Your task to perform on an android device: View the shopping cart on walmart.com. Image 0: 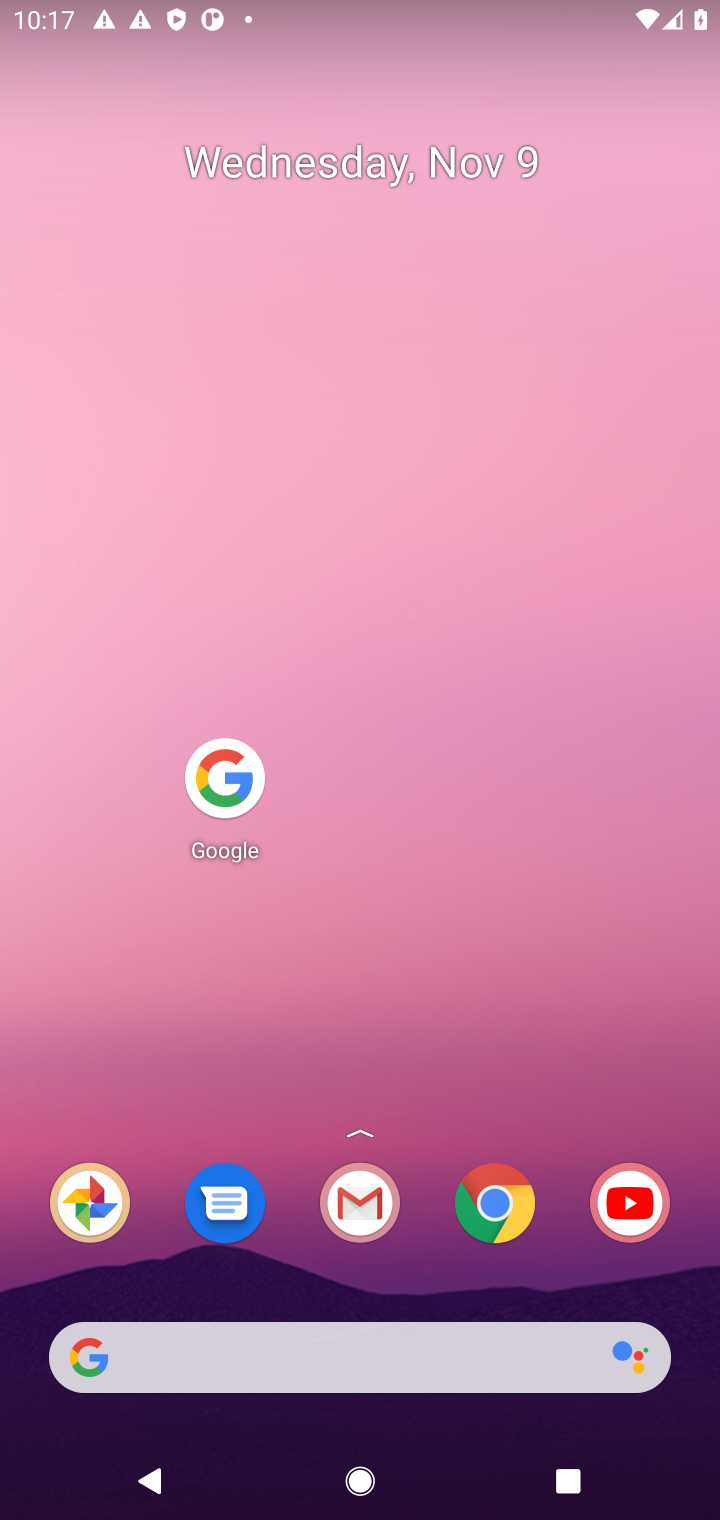
Step 0: press home button
Your task to perform on an android device: View the shopping cart on walmart.com. Image 1: 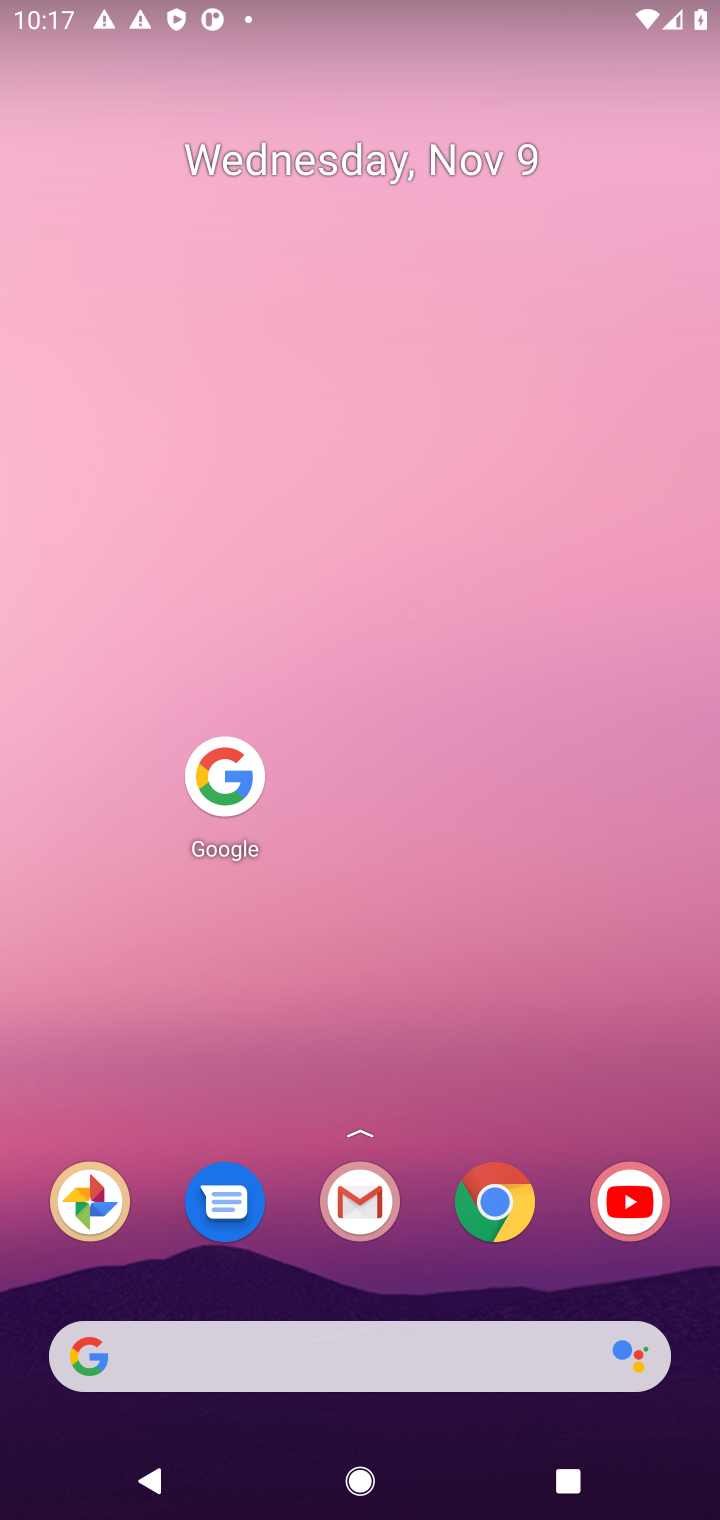
Step 1: click (236, 777)
Your task to perform on an android device: View the shopping cart on walmart.com. Image 2: 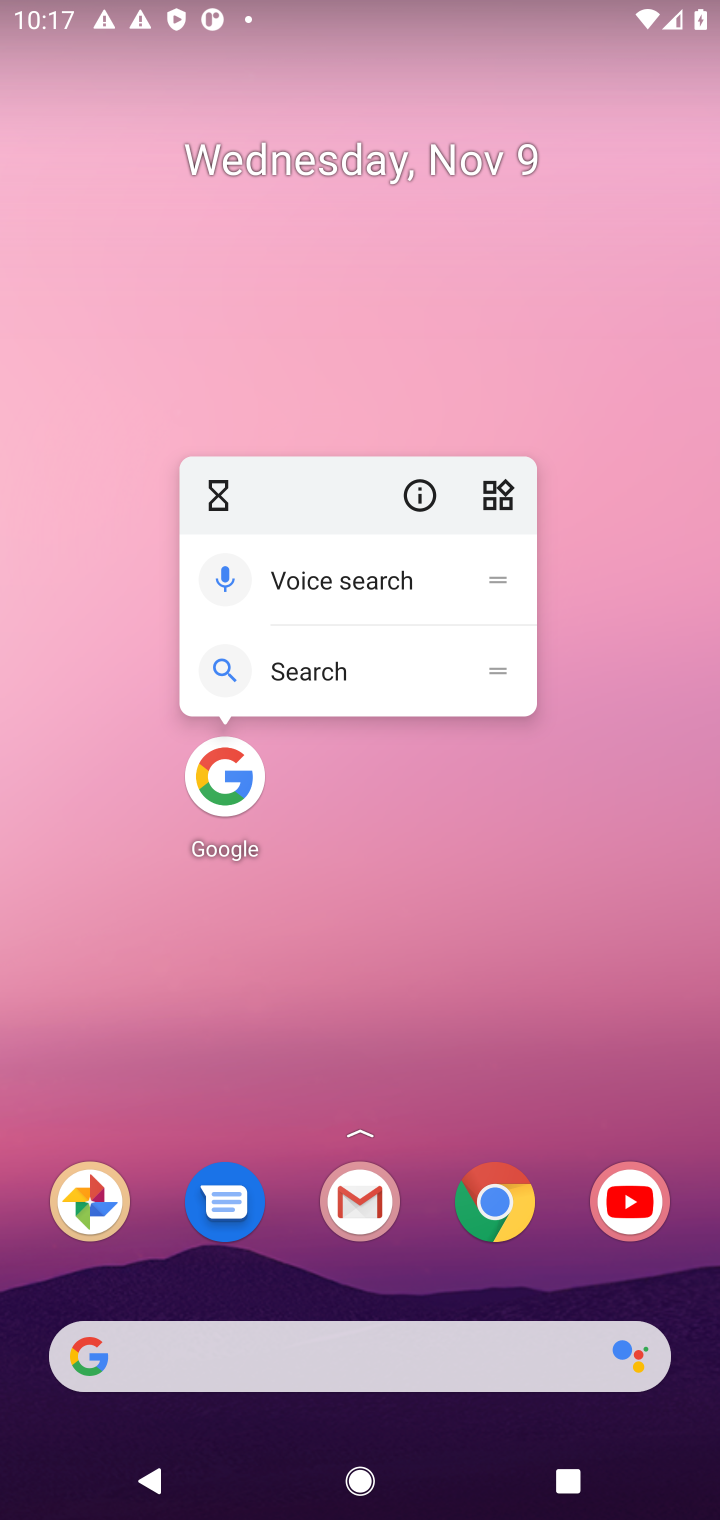
Step 2: click (236, 780)
Your task to perform on an android device: View the shopping cart on walmart.com. Image 3: 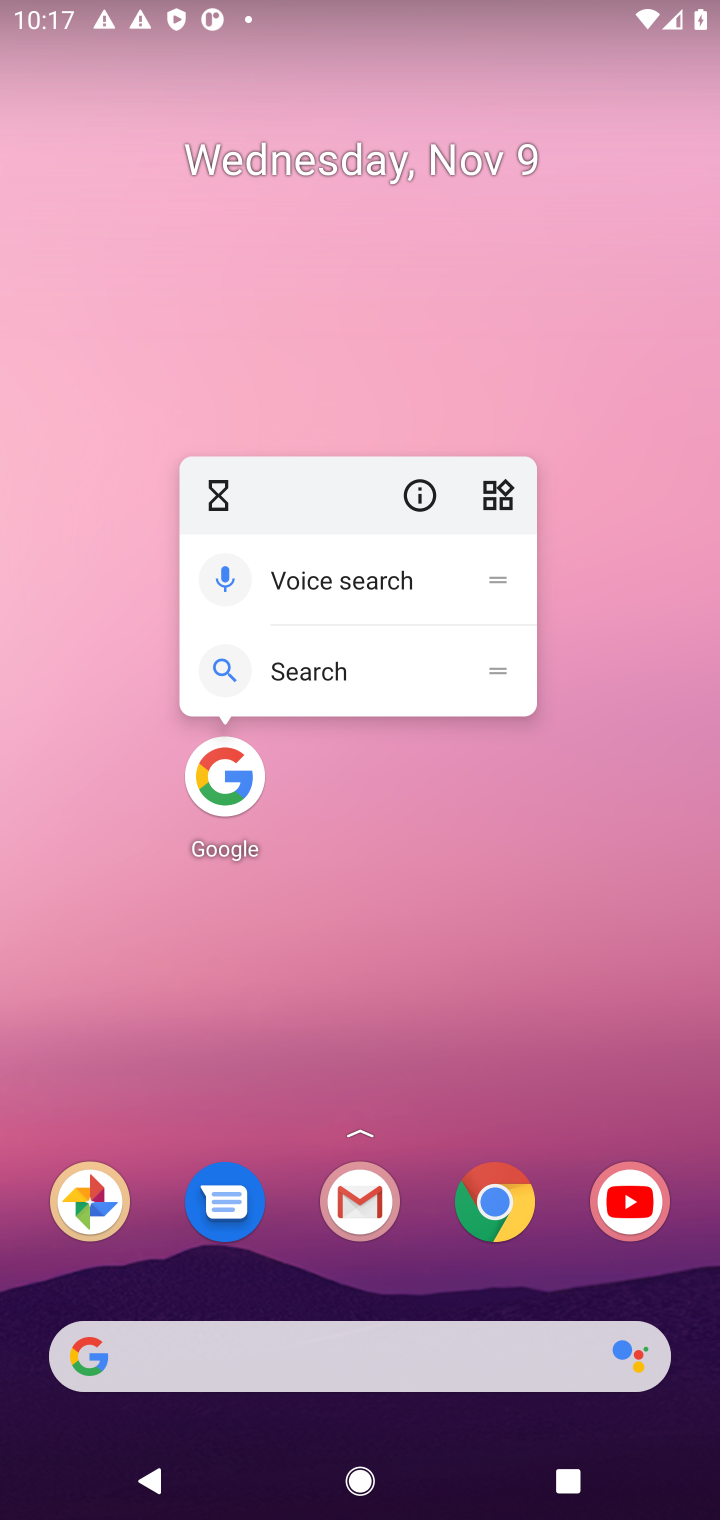
Step 3: click (236, 782)
Your task to perform on an android device: View the shopping cart on walmart.com. Image 4: 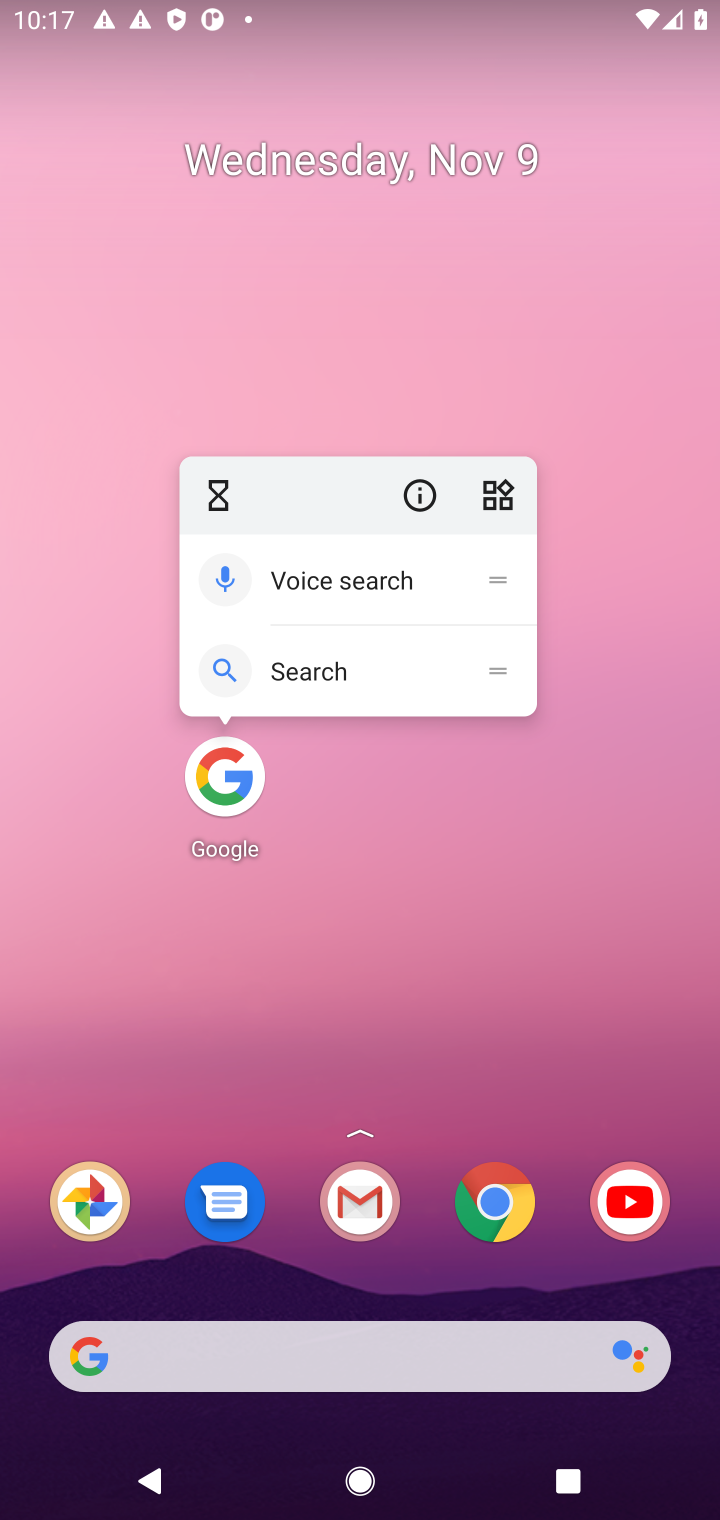
Step 4: click (217, 763)
Your task to perform on an android device: View the shopping cart on walmart.com. Image 5: 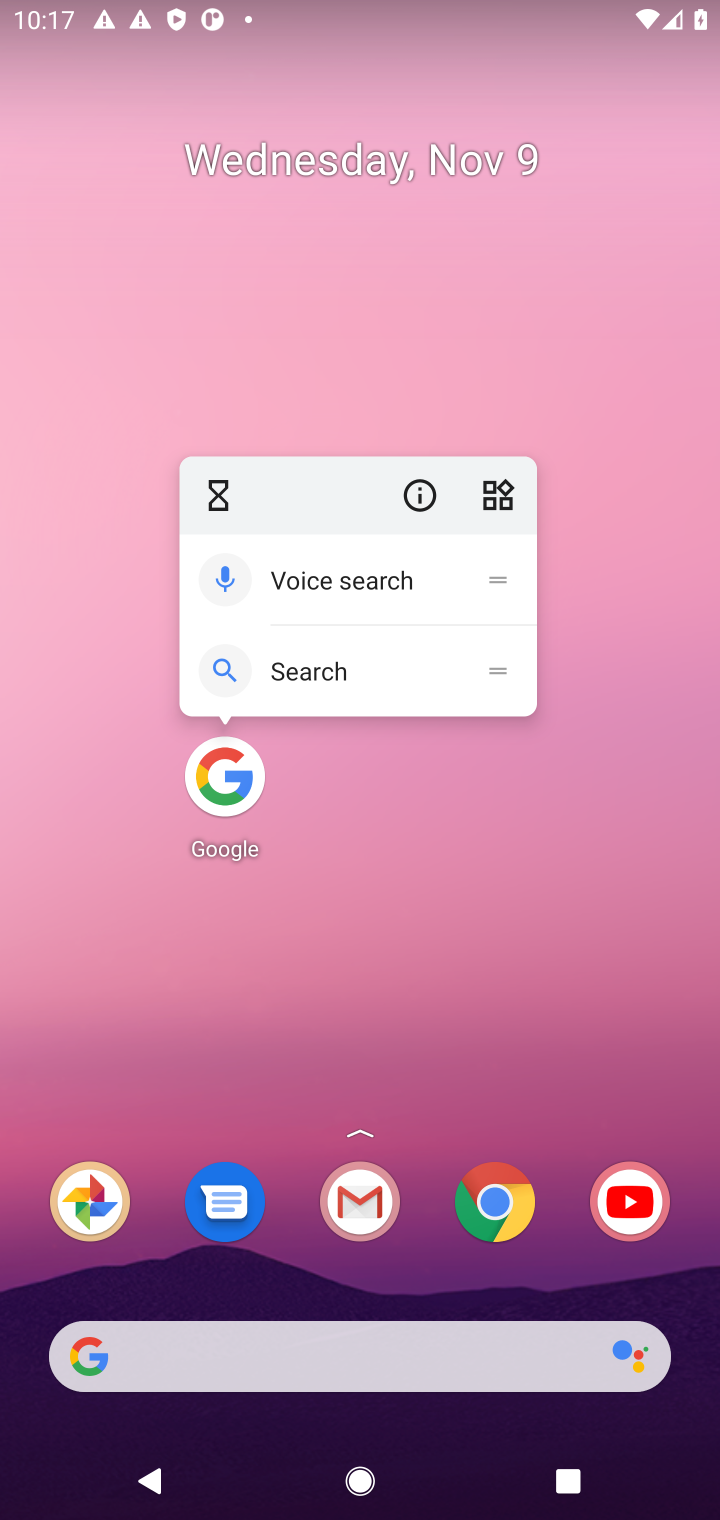
Step 5: click (215, 765)
Your task to perform on an android device: View the shopping cart on walmart.com. Image 6: 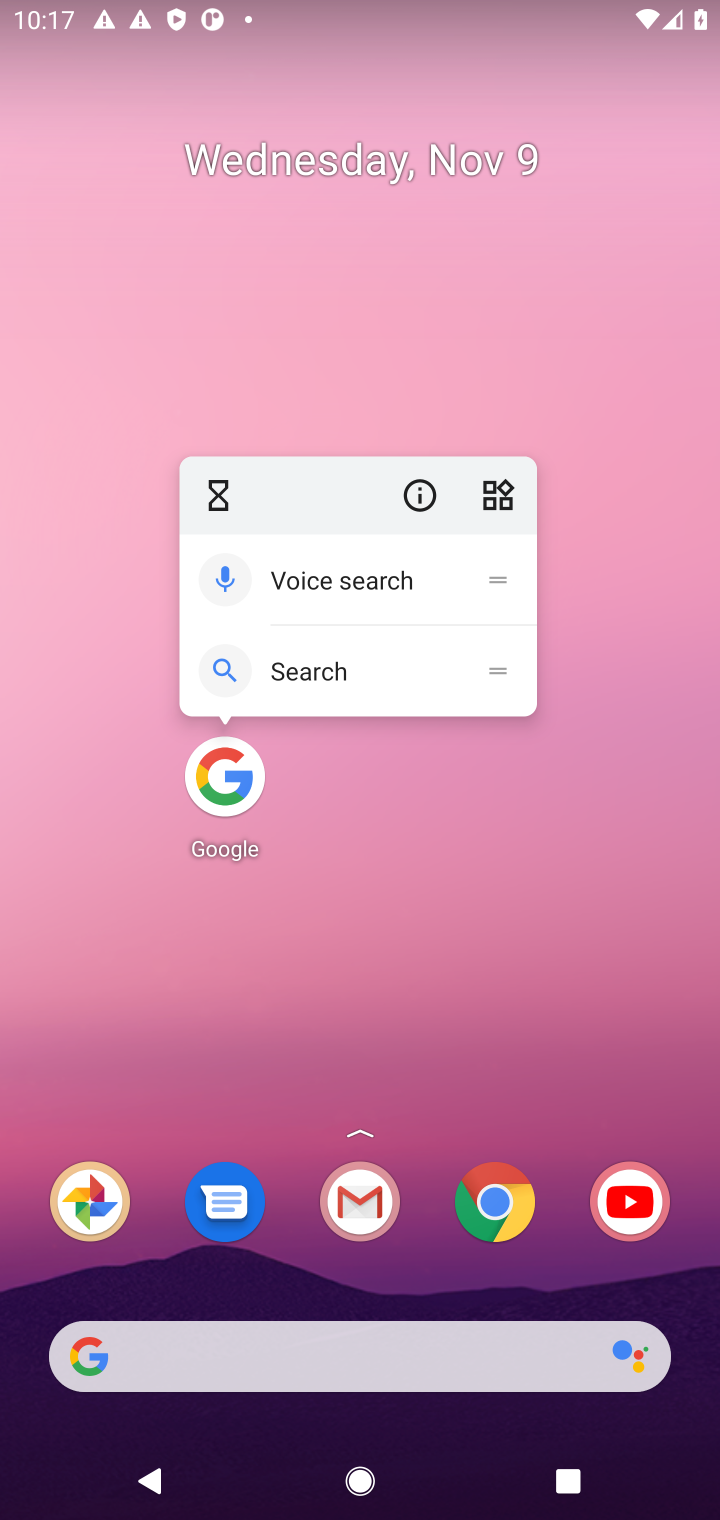
Step 6: click (215, 763)
Your task to perform on an android device: View the shopping cart on walmart.com. Image 7: 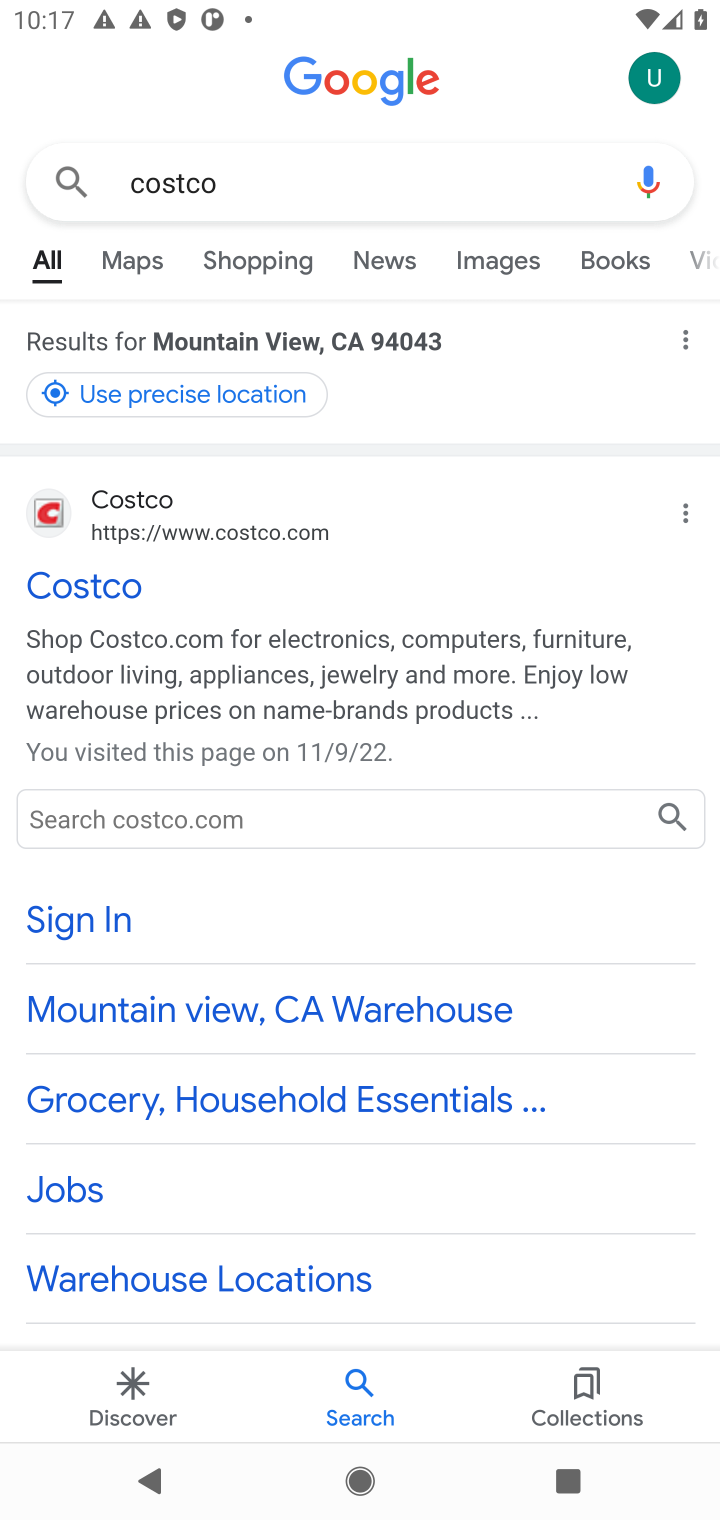
Step 7: click (263, 165)
Your task to perform on an android device: View the shopping cart on walmart.com. Image 8: 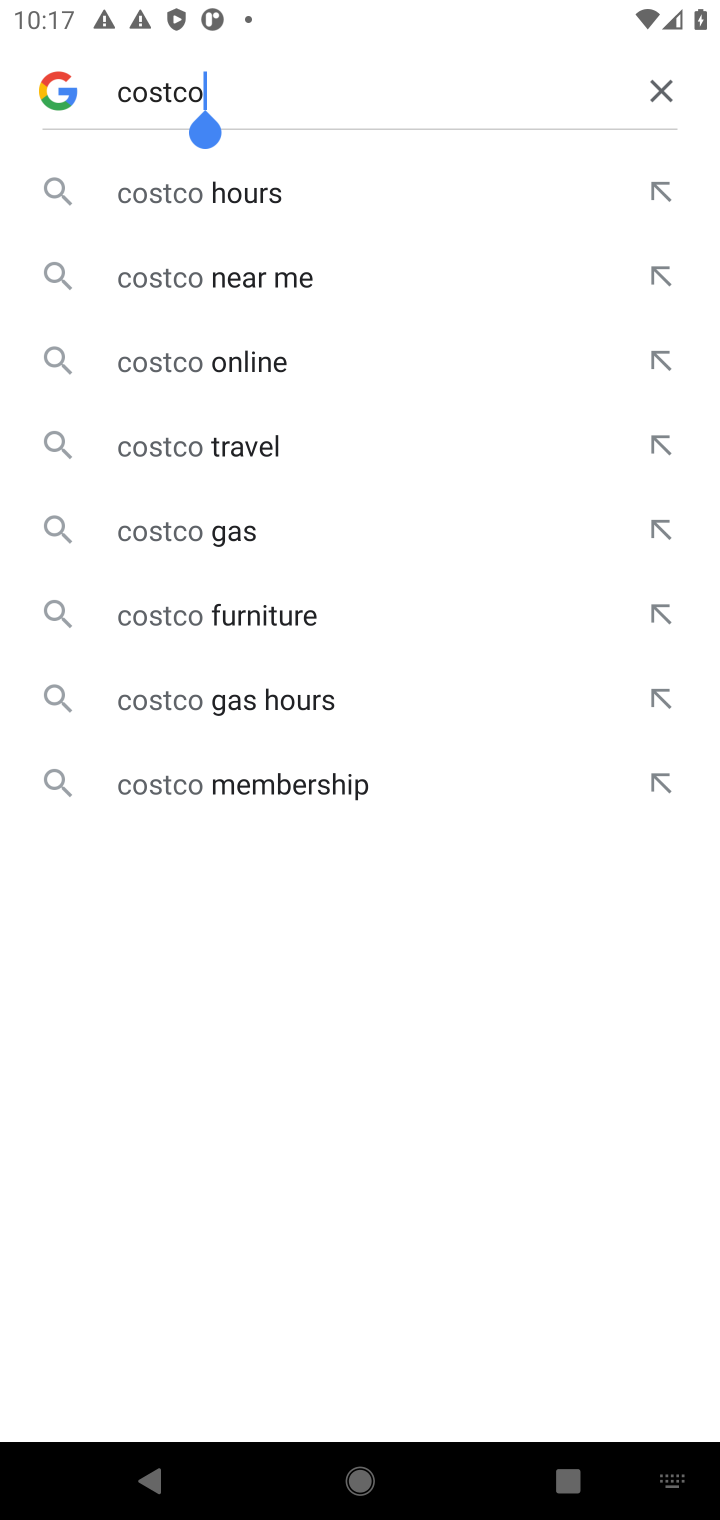
Step 8: click (659, 85)
Your task to perform on an android device: View the shopping cart on walmart.com. Image 9: 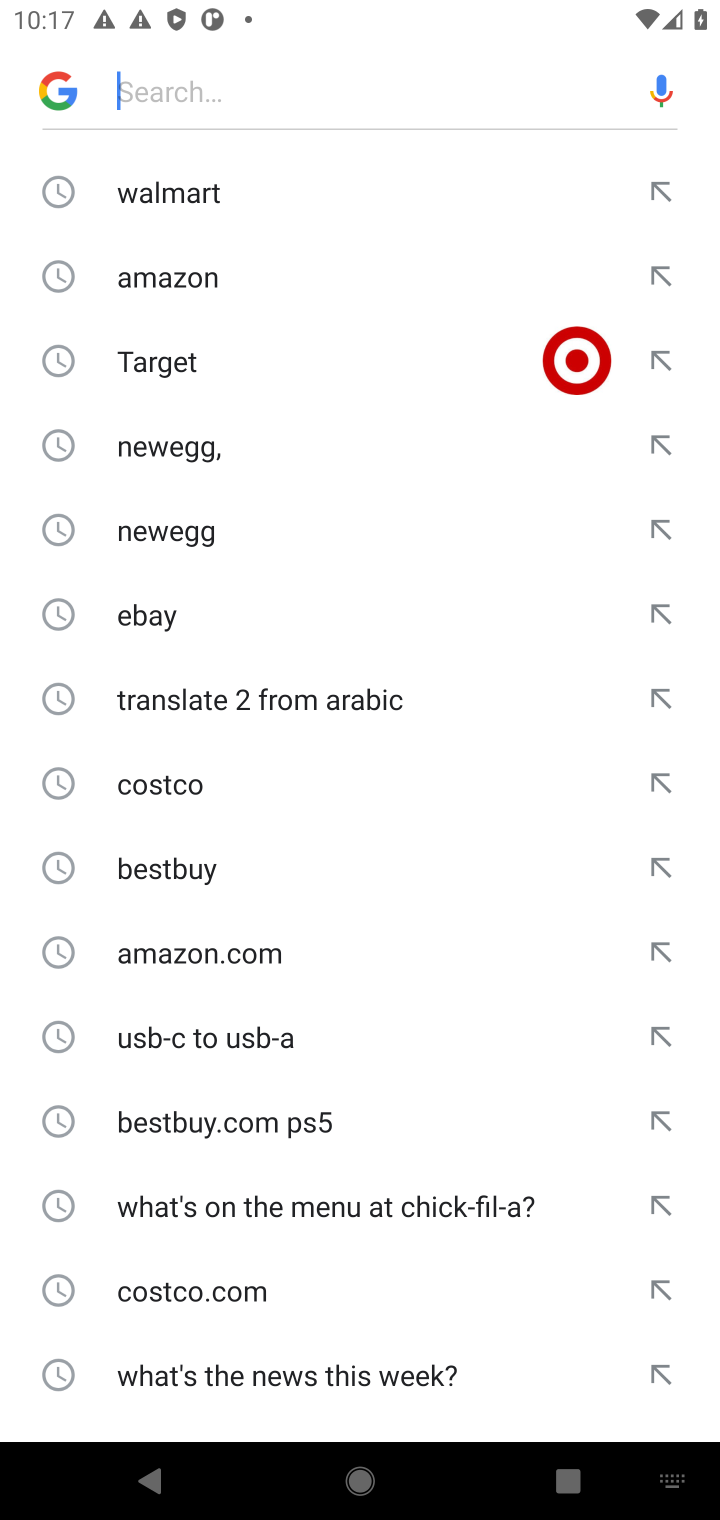
Step 9: click (139, 186)
Your task to perform on an android device: View the shopping cart on walmart.com. Image 10: 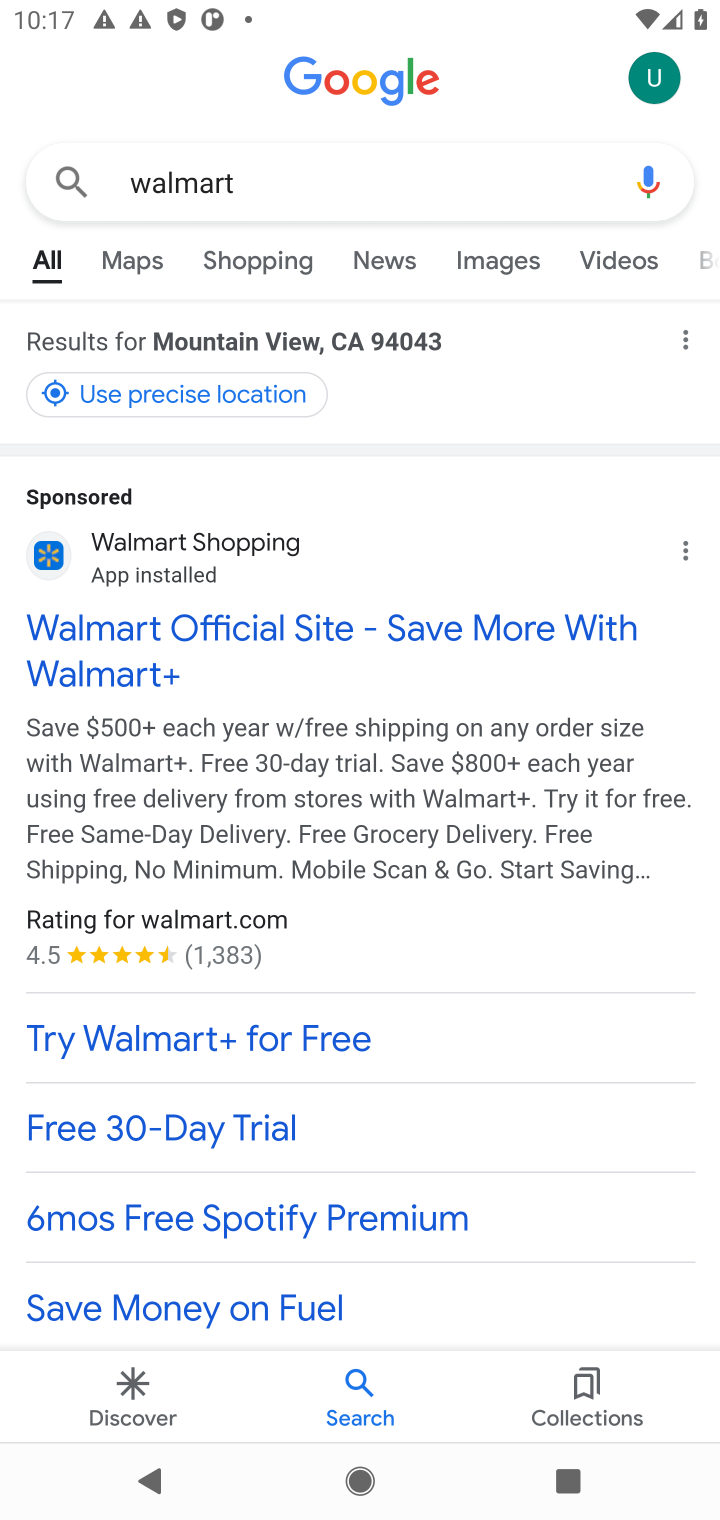
Step 10: drag from (365, 1195) to (572, 241)
Your task to perform on an android device: View the shopping cart on walmart.com. Image 11: 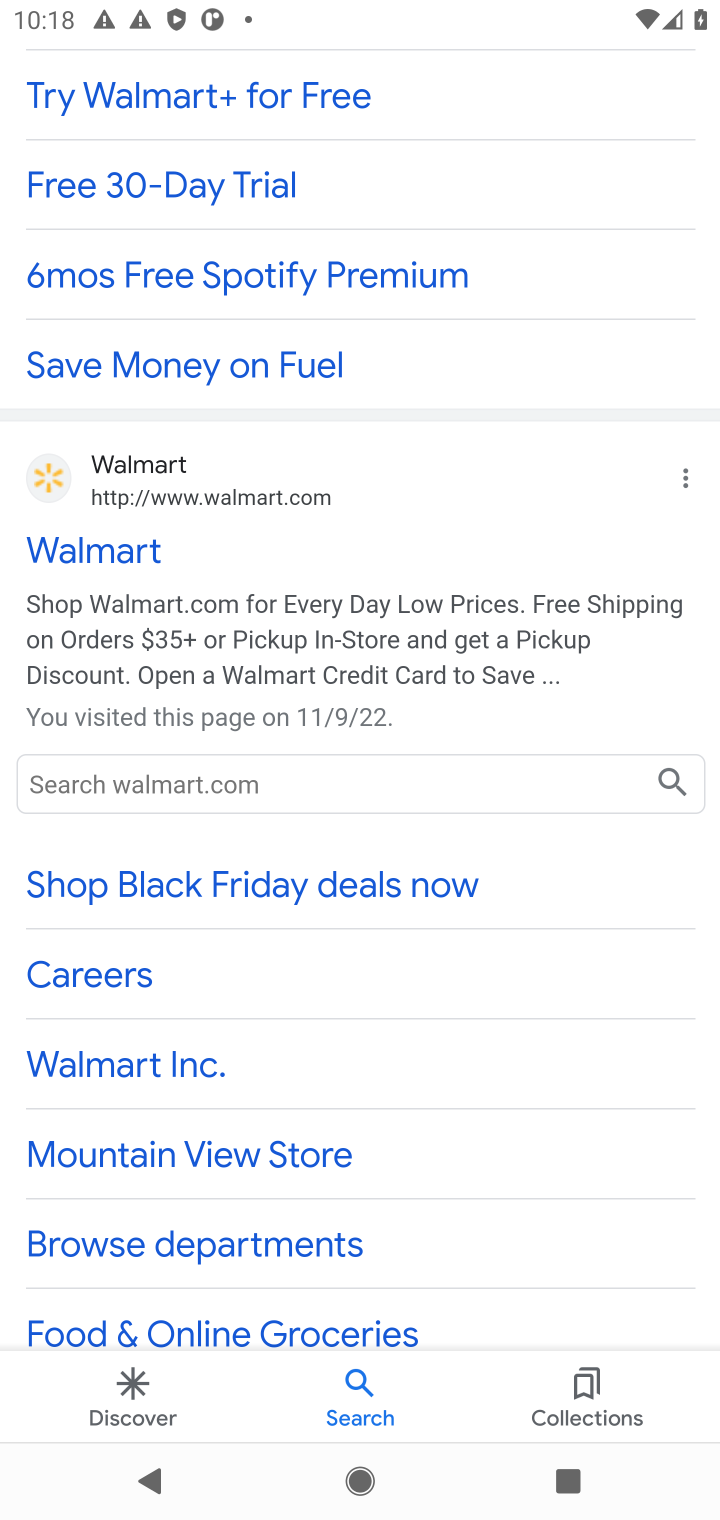
Step 11: click (87, 547)
Your task to perform on an android device: View the shopping cart on walmart.com. Image 12: 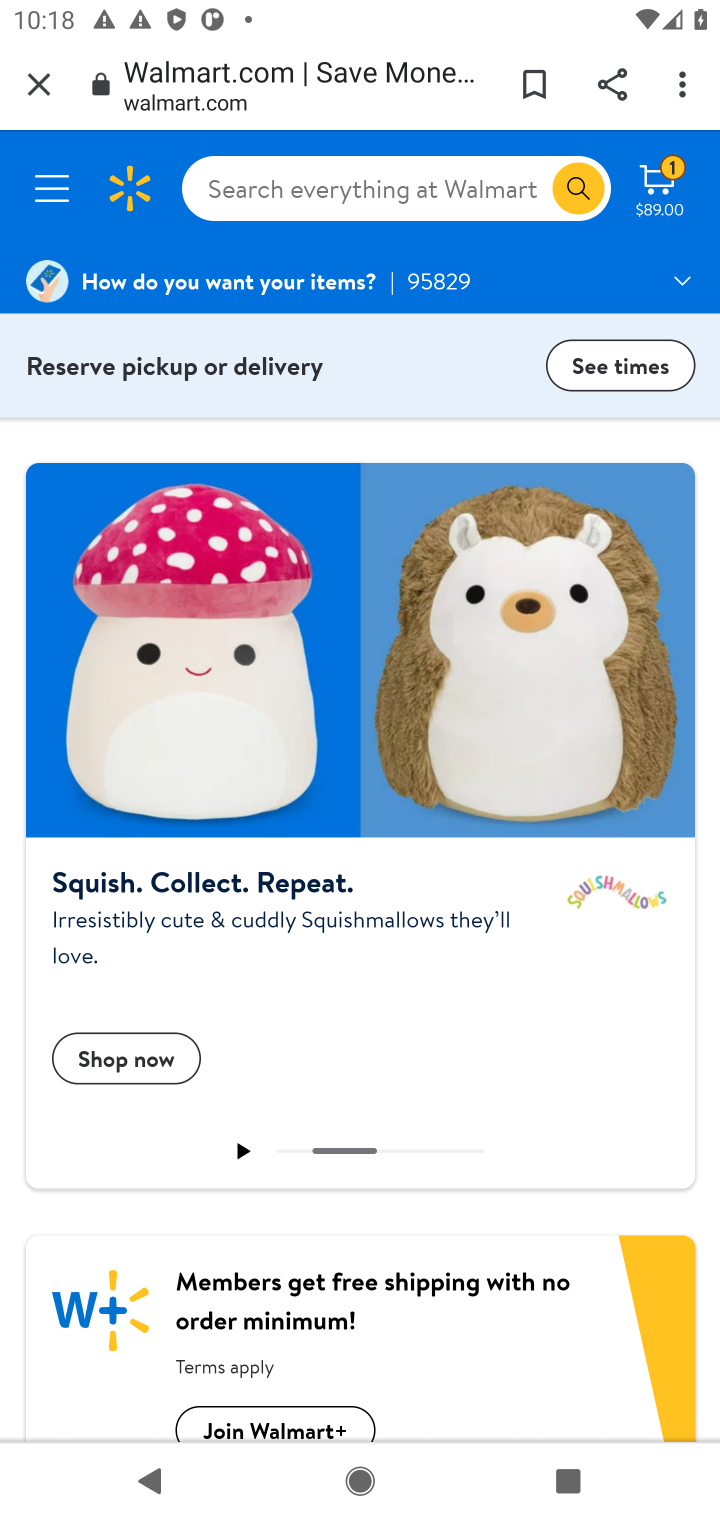
Step 12: click (653, 180)
Your task to perform on an android device: View the shopping cart on walmart.com. Image 13: 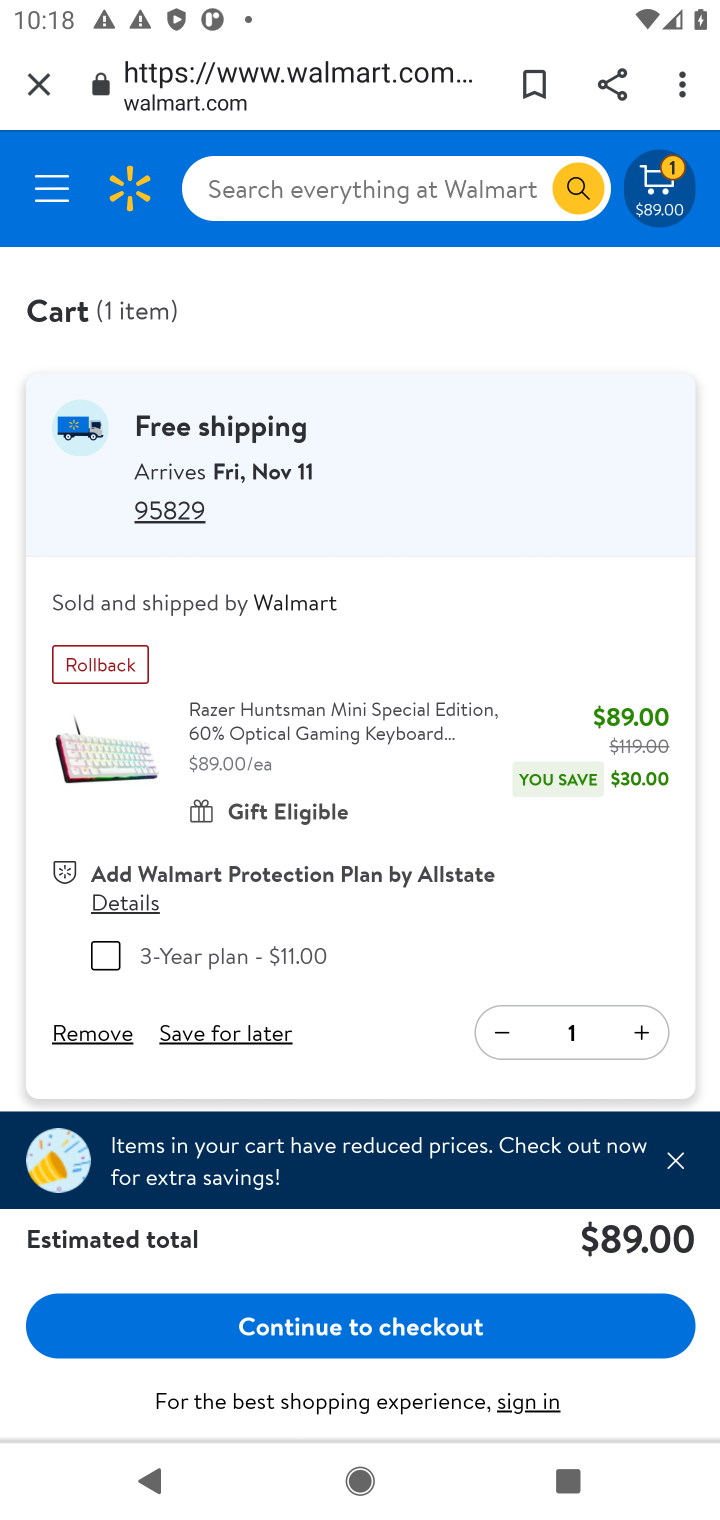
Step 13: task complete